Your task to perform on an android device: What's on my calendar tomorrow? Image 0: 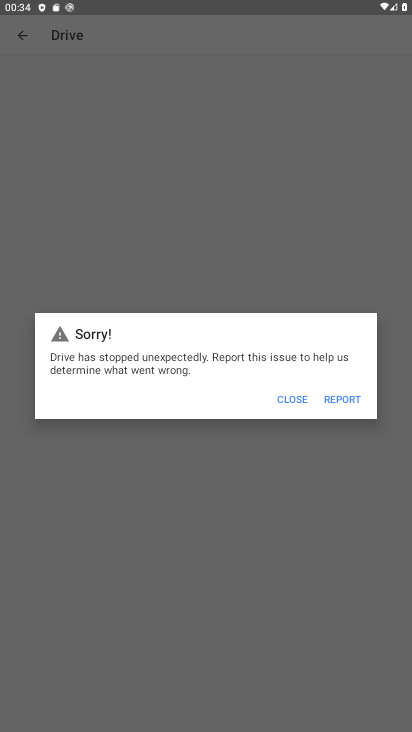
Step 0: click (289, 397)
Your task to perform on an android device: What's on my calendar tomorrow? Image 1: 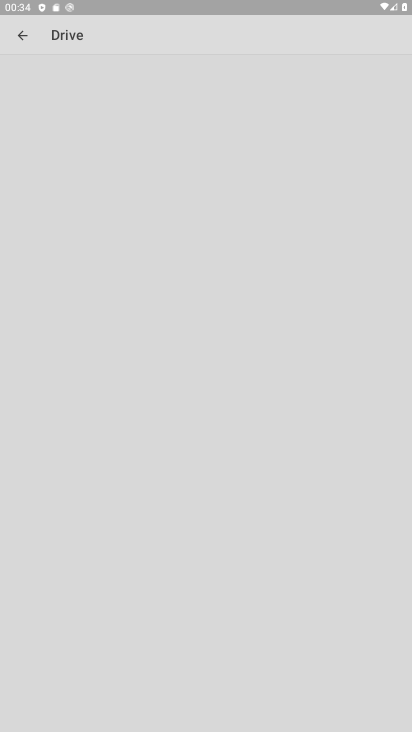
Step 1: click (294, 392)
Your task to perform on an android device: What's on my calendar tomorrow? Image 2: 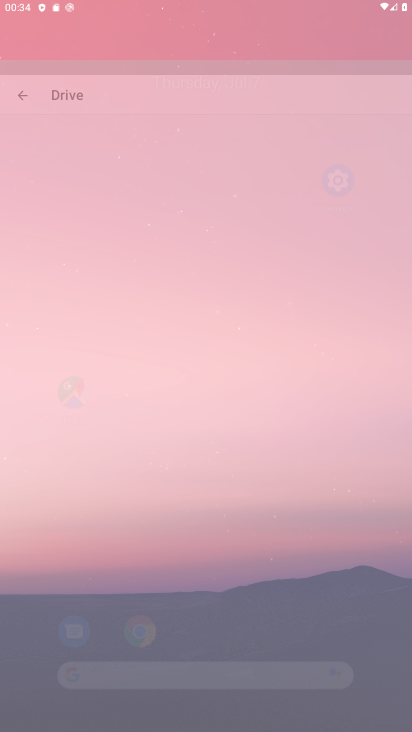
Step 2: click (294, 392)
Your task to perform on an android device: What's on my calendar tomorrow? Image 3: 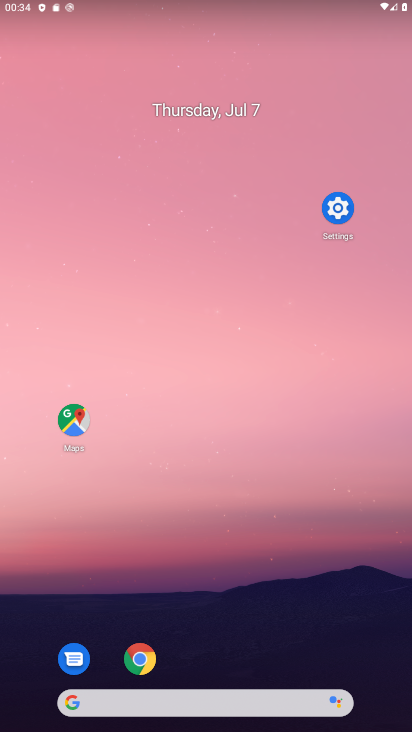
Step 3: press back button
Your task to perform on an android device: What's on my calendar tomorrow? Image 4: 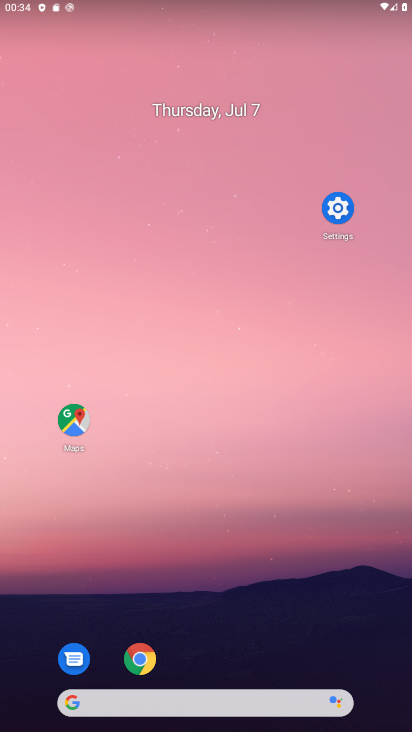
Step 4: drag from (341, 713) to (200, 133)
Your task to perform on an android device: What's on my calendar tomorrow? Image 5: 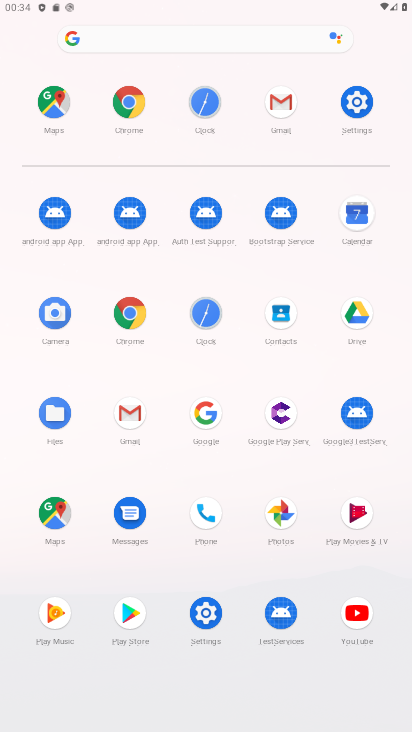
Step 5: click (356, 223)
Your task to perform on an android device: What's on my calendar tomorrow? Image 6: 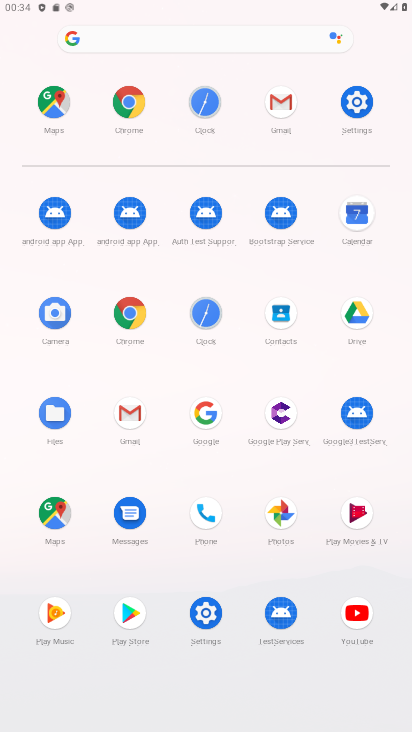
Step 6: click (361, 221)
Your task to perform on an android device: What's on my calendar tomorrow? Image 7: 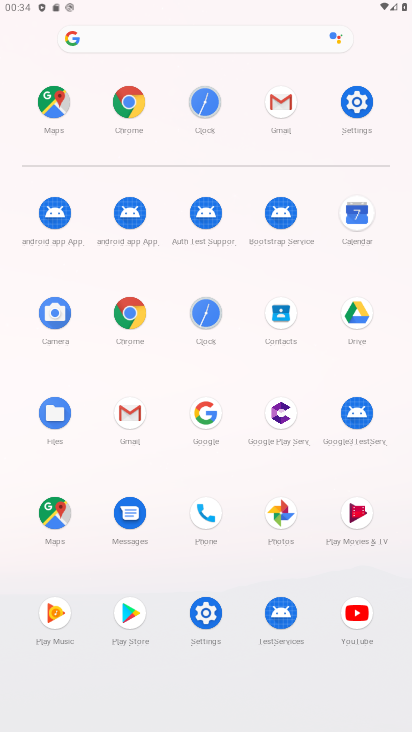
Step 7: click (361, 221)
Your task to perform on an android device: What's on my calendar tomorrow? Image 8: 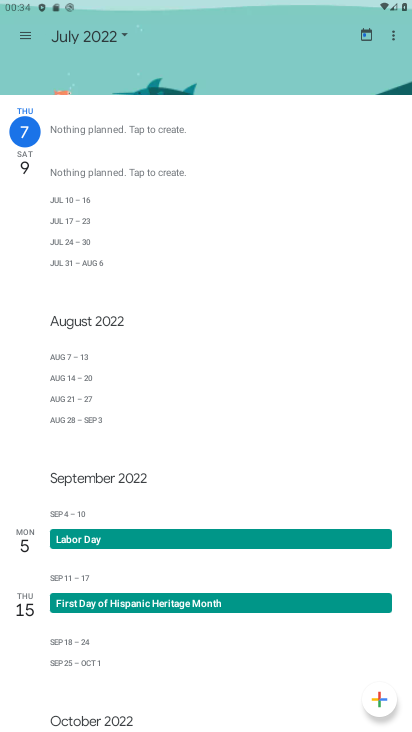
Step 8: click (24, 164)
Your task to perform on an android device: What's on my calendar tomorrow? Image 9: 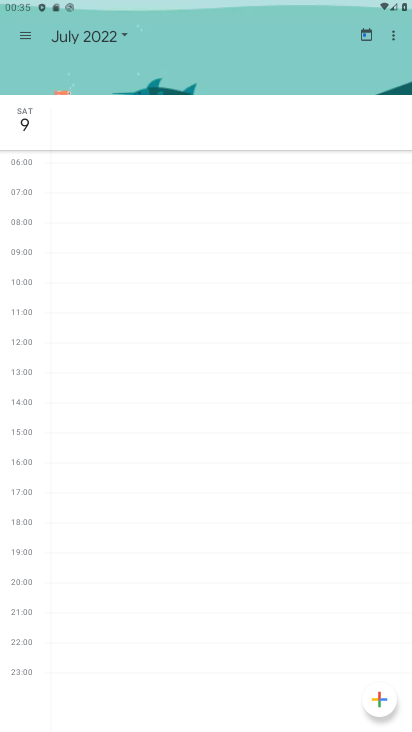
Step 9: click (19, 220)
Your task to perform on an android device: What's on my calendar tomorrow? Image 10: 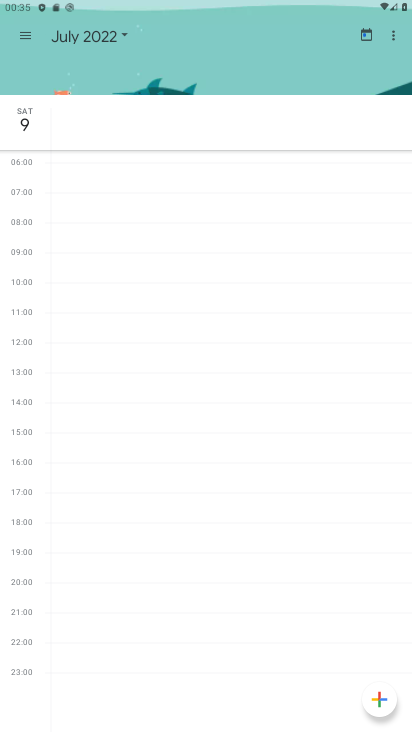
Step 10: click (20, 222)
Your task to perform on an android device: What's on my calendar tomorrow? Image 11: 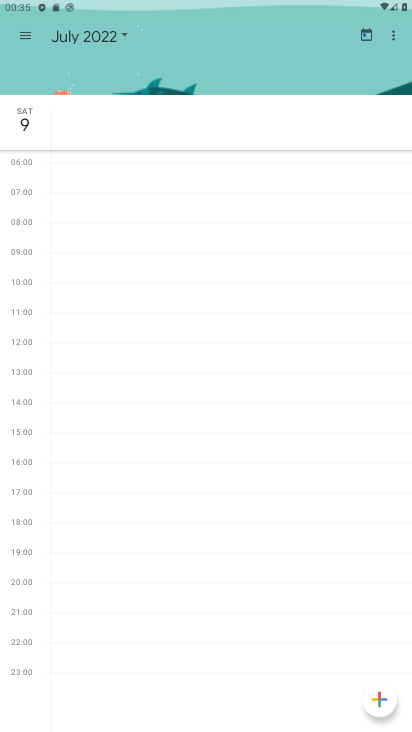
Step 11: click (20, 222)
Your task to perform on an android device: What's on my calendar tomorrow? Image 12: 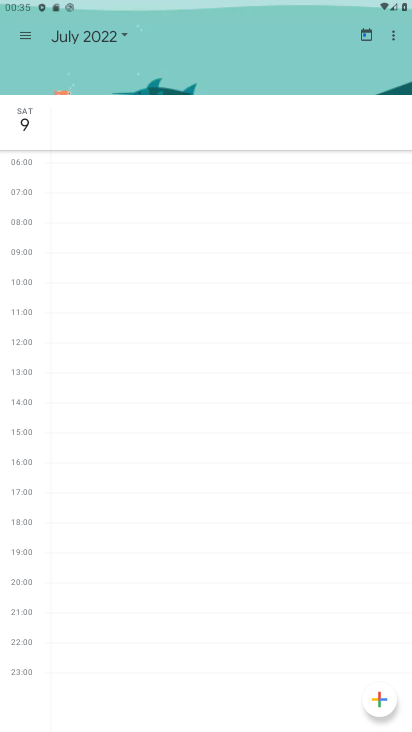
Step 12: click (20, 222)
Your task to perform on an android device: What's on my calendar tomorrow? Image 13: 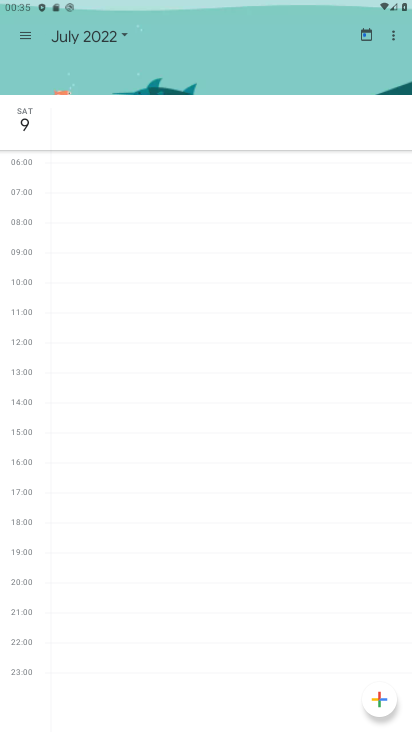
Step 13: click (20, 222)
Your task to perform on an android device: What's on my calendar tomorrow? Image 14: 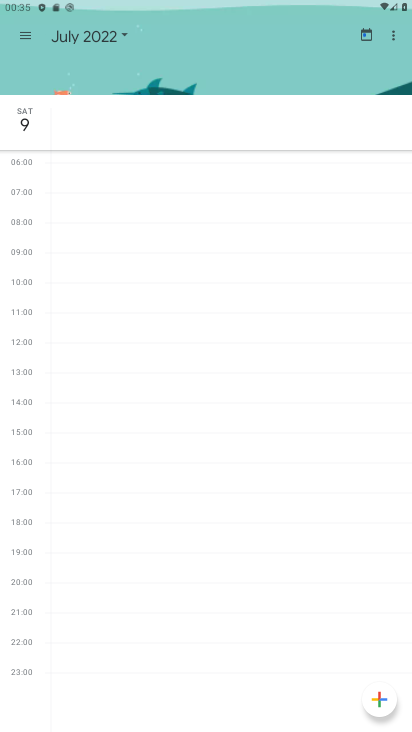
Step 14: click (22, 220)
Your task to perform on an android device: What's on my calendar tomorrow? Image 15: 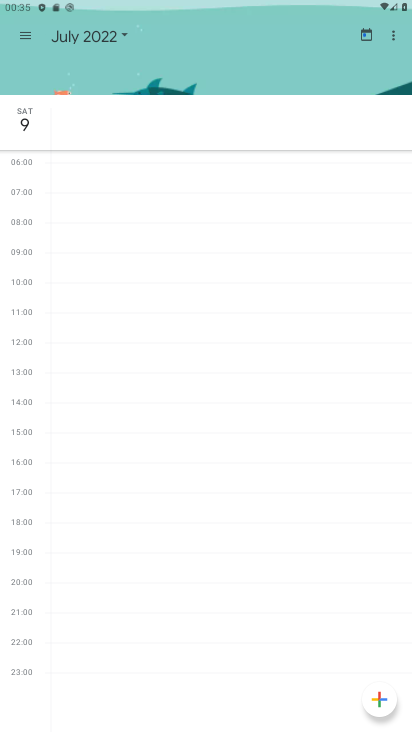
Step 15: click (25, 220)
Your task to perform on an android device: What's on my calendar tomorrow? Image 16: 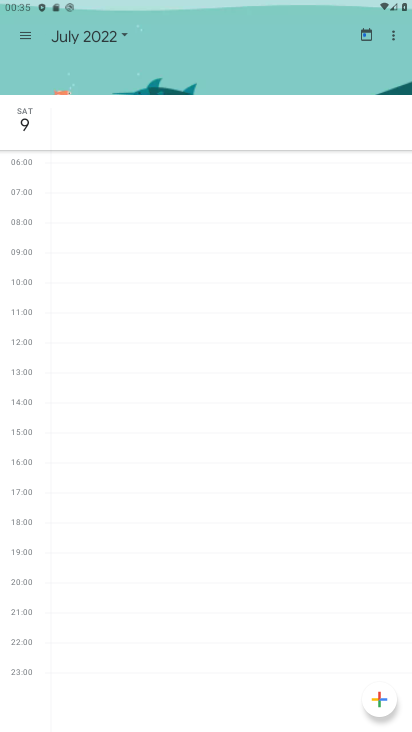
Step 16: click (20, 220)
Your task to perform on an android device: What's on my calendar tomorrow? Image 17: 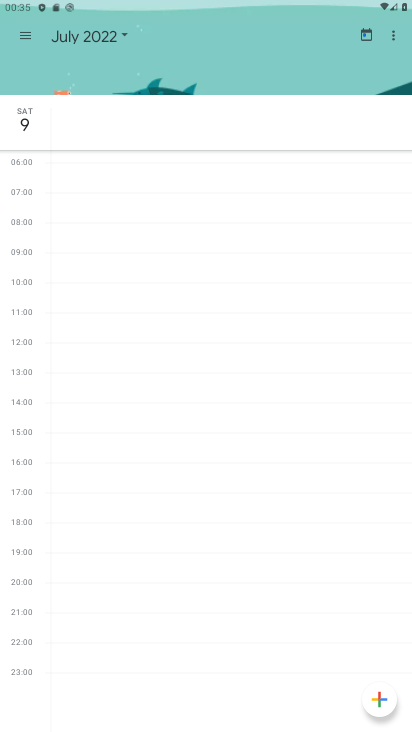
Step 17: click (21, 220)
Your task to perform on an android device: What's on my calendar tomorrow? Image 18: 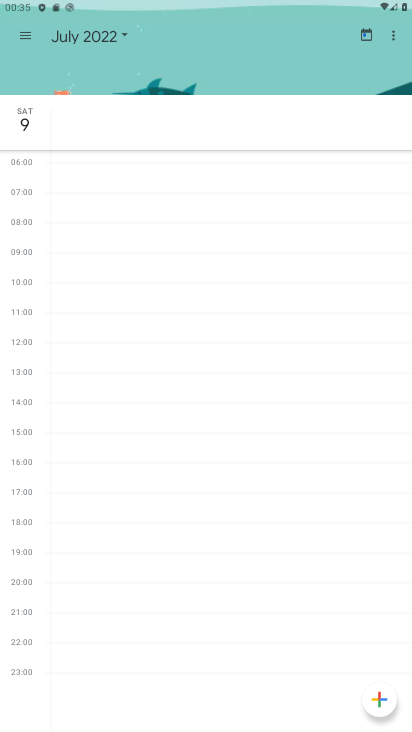
Step 18: click (21, 220)
Your task to perform on an android device: What's on my calendar tomorrow? Image 19: 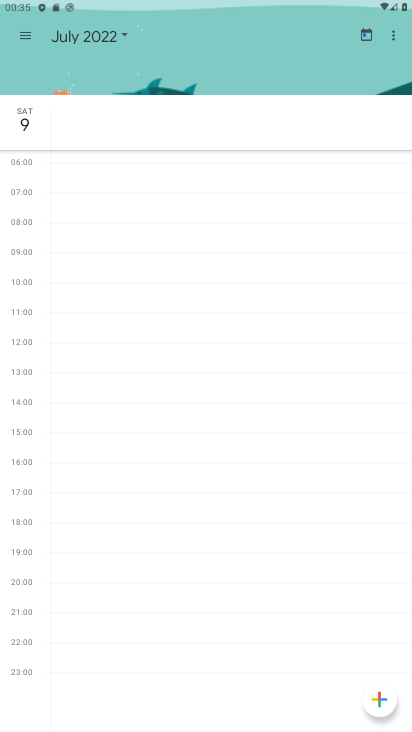
Step 19: click (21, 220)
Your task to perform on an android device: What's on my calendar tomorrow? Image 20: 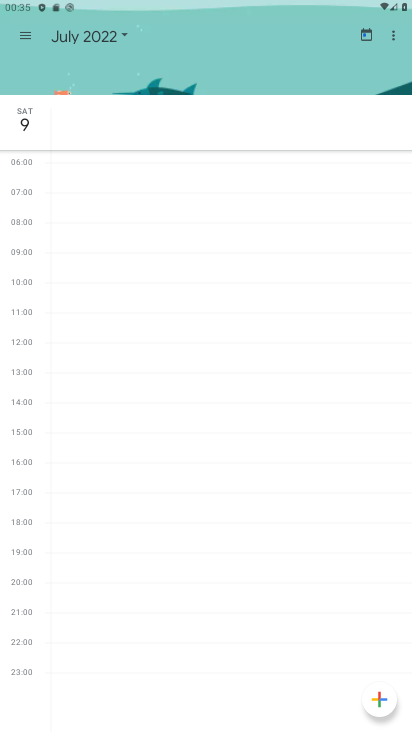
Step 20: press back button
Your task to perform on an android device: What's on my calendar tomorrow? Image 21: 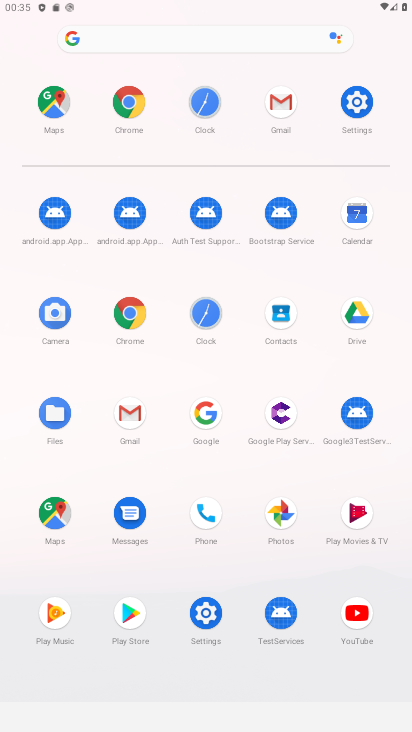
Step 21: click (354, 216)
Your task to perform on an android device: What's on my calendar tomorrow? Image 22: 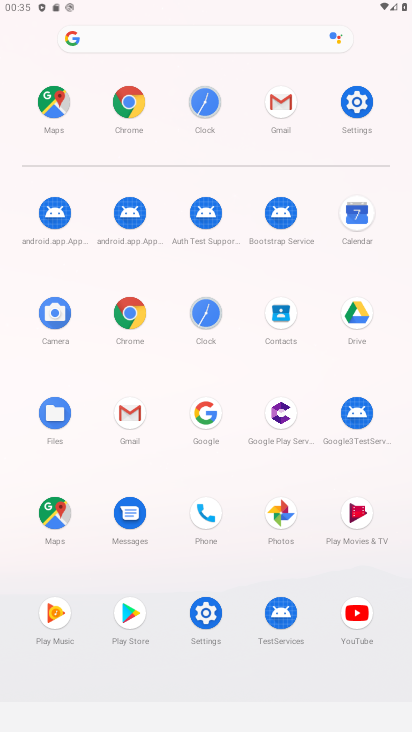
Step 22: click (367, 213)
Your task to perform on an android device: What's on my calendar tomorrow? Image 23: 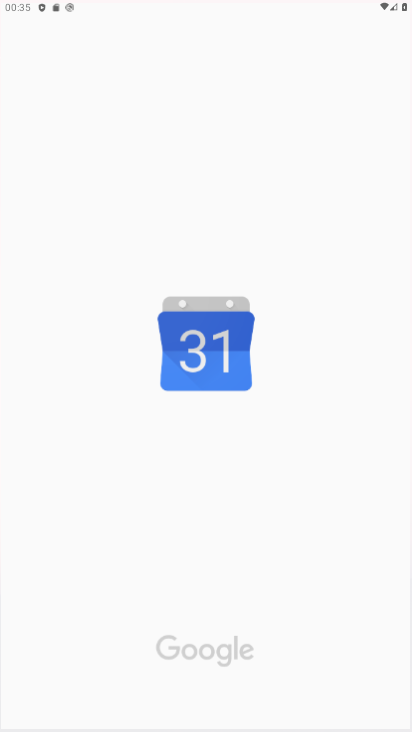
Step 23: click (368, 212)
Your task to perform on an android device: What's on my calendar tomorrow? Image 24: 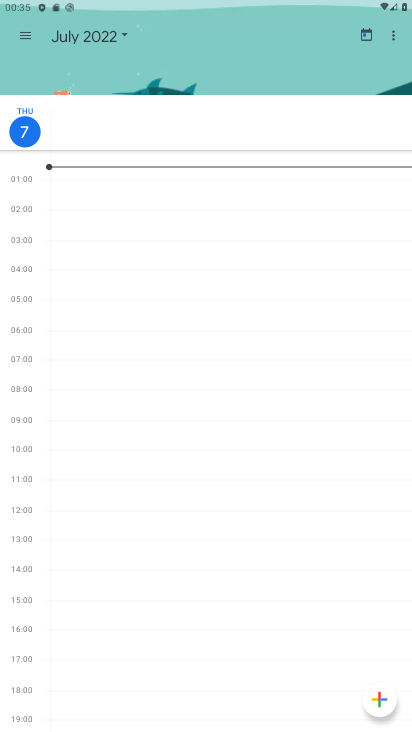
Step 24: click (19, 26)
Your task to perform on an android device: What's on my calendar tomorrow? Image 25: 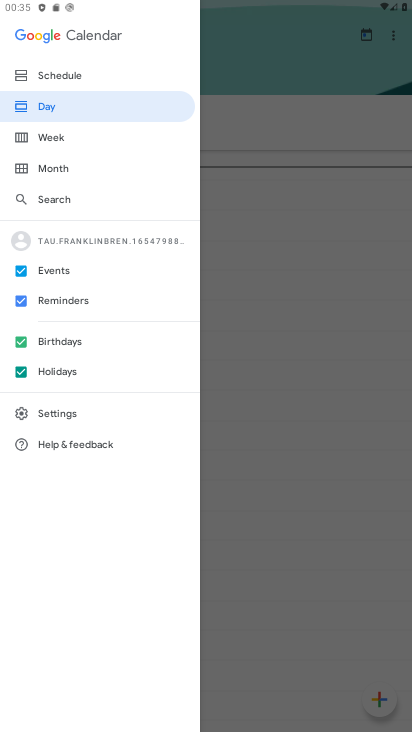
Step 25: click (48, 74)
Your task to perform on an android device: What's on my calendar tomorrow? Image 26: 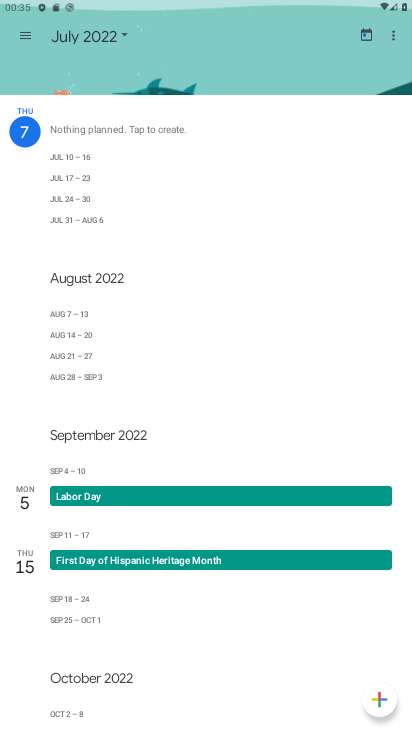
Step 26: task complete